Your task to perform on an android device: Open wifi settings Image 0: 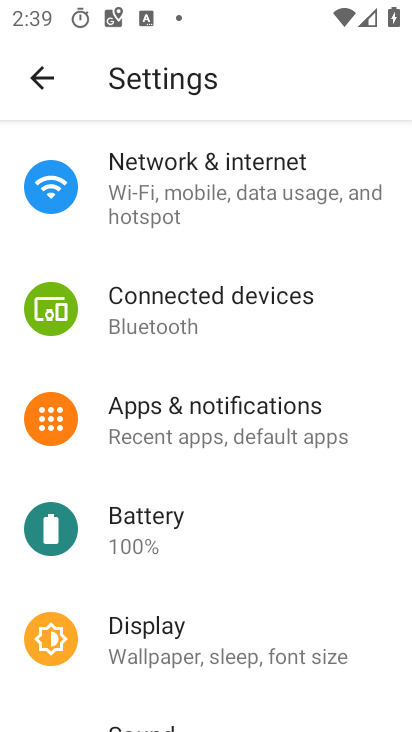
Step 0: click (170, 175)
Your task to perform on an android device: Open wifi settings Image 1: 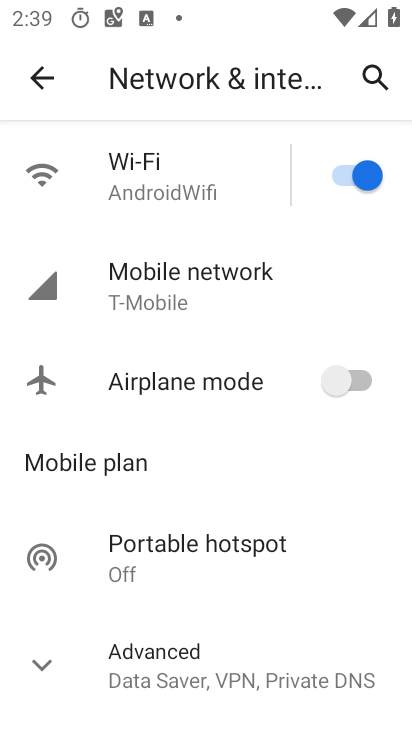
Step 1: click (165, 172)
Your task to perform on an android device: Open wifi settings Image 2: 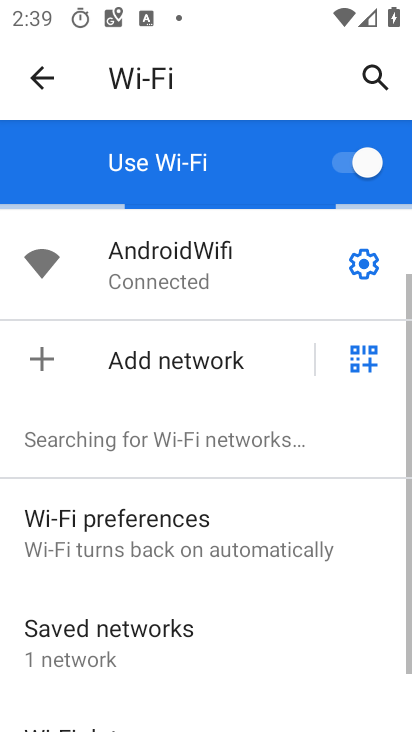
Step 2: click (366, 260)
Your task to perform on an android device: Open wifi settings Image 3: 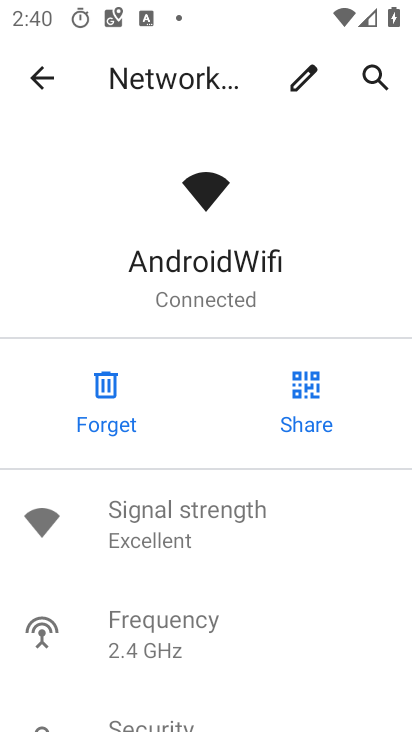
Step 3: drag from (282, 695) to (257, 370)
Your task to perform on an android device: Open wifi settings Image 4: 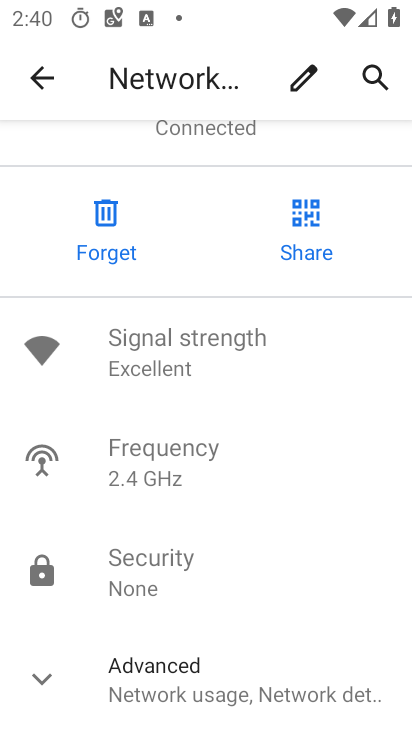
Step 4: click (58, 678)
Your task to perform on an android device: Open wifi settings Image 5: 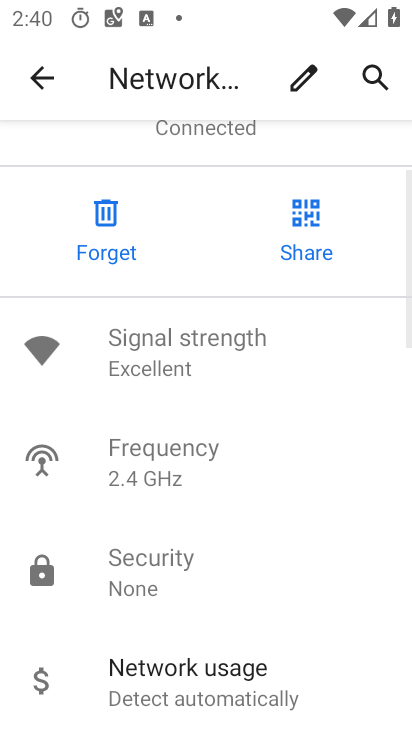
Step 5: task complete